Your task to perform on an android device: Open Chrome and go to settings Image 0: 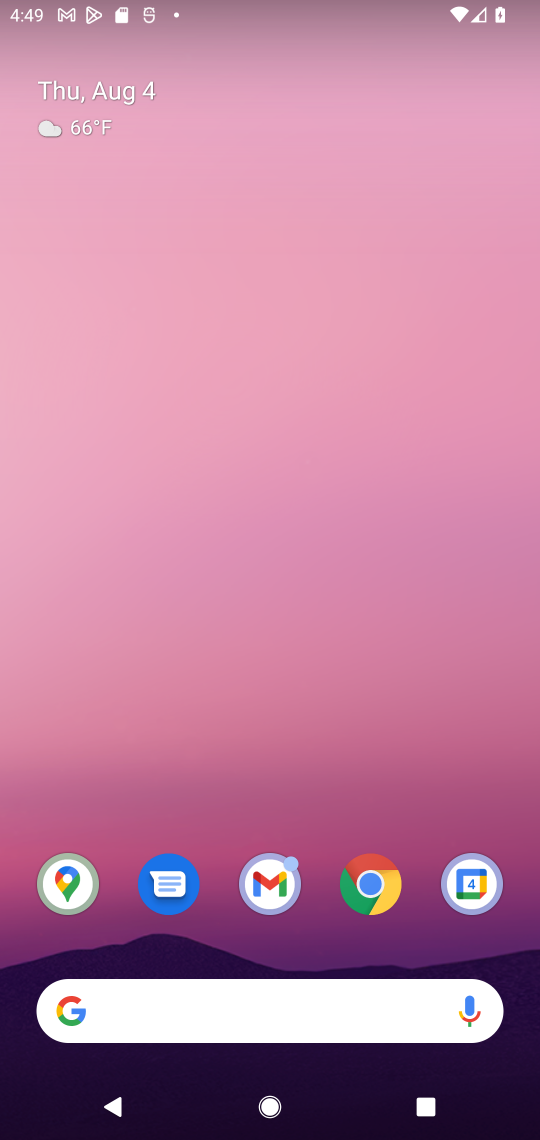
Step 0: click (377, 859)
Your task to perform on an android device: Open Chrome and go to settings Image 1: 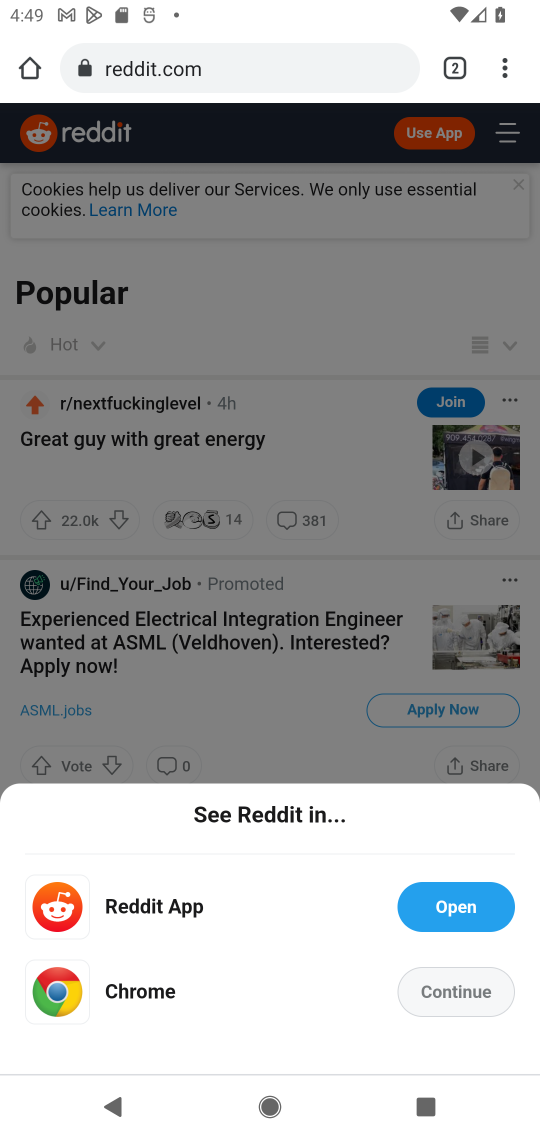
Step 1: click (504, 76)
Your task to perform on an android device: Open Chrome and go to settings Image 2: 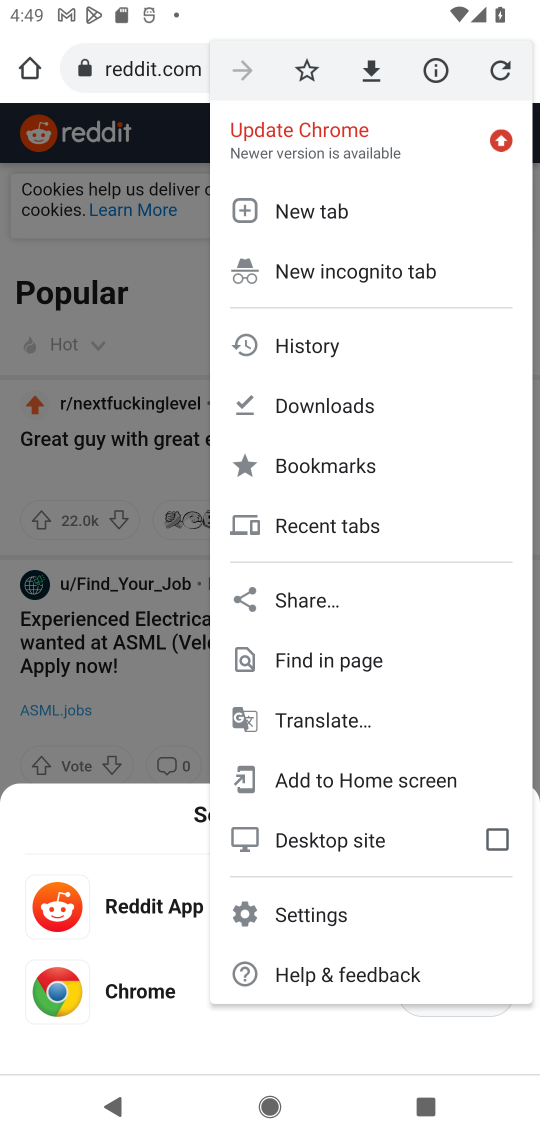
Step 2: click (331, 898)
Your task to perform on an android device: Open Chrome and go to settings Image 3: 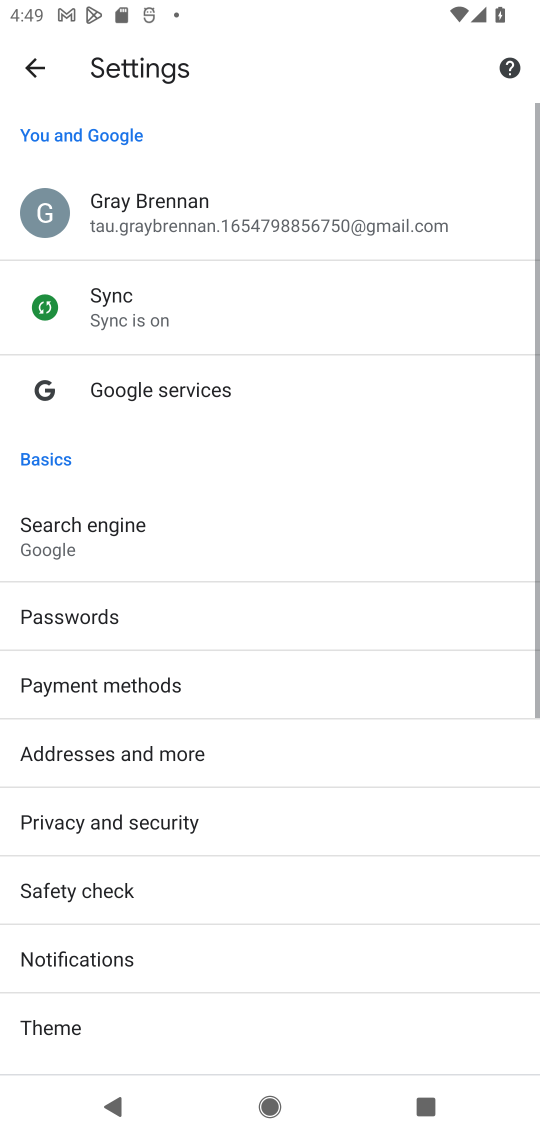
Step 3: task complete